Your task to perform on an android device: Do I have any events today? Image 0: 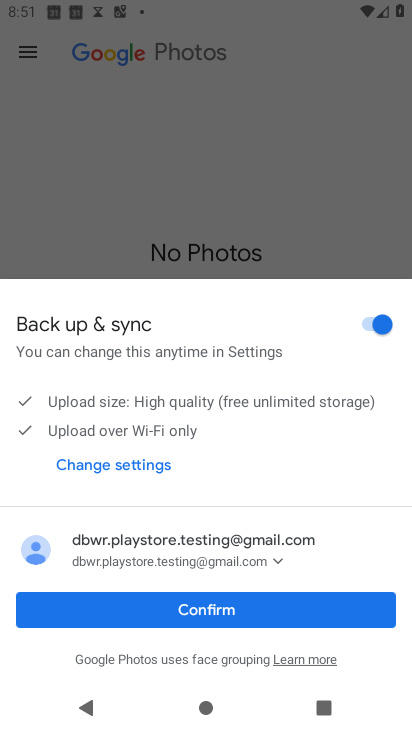
Step 0: press home button
Your task to perform on an android device: Do I have any events today? Image 1: 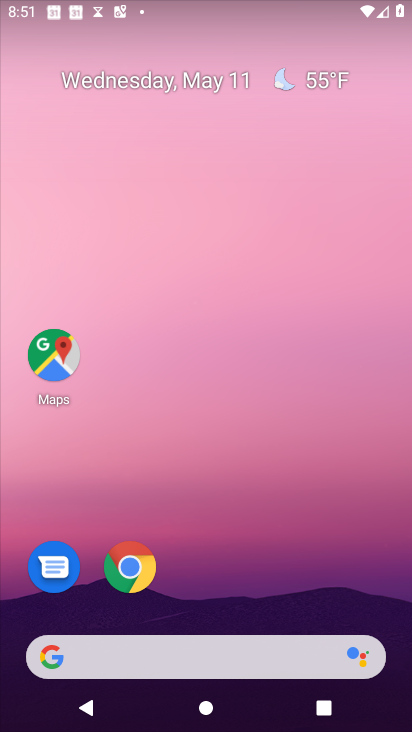
Step 1: drag from (199, 598) to (252, 24)
Your task to perform on an android device: Do I have any events today? Image 2: 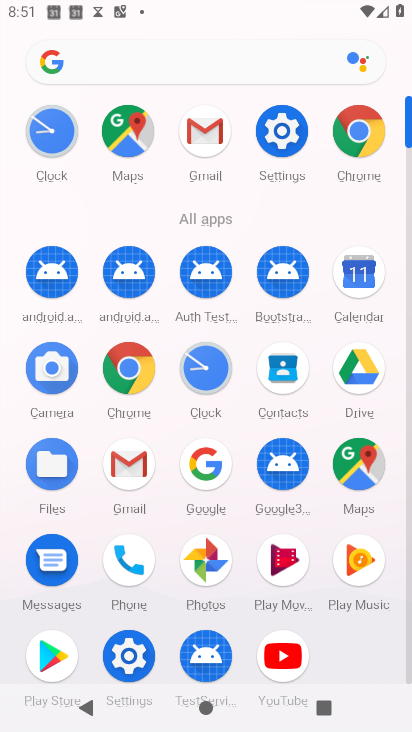
Step 2: click (348, 280)
Your task to perform on an android device: Do I have any events today? Image 3: 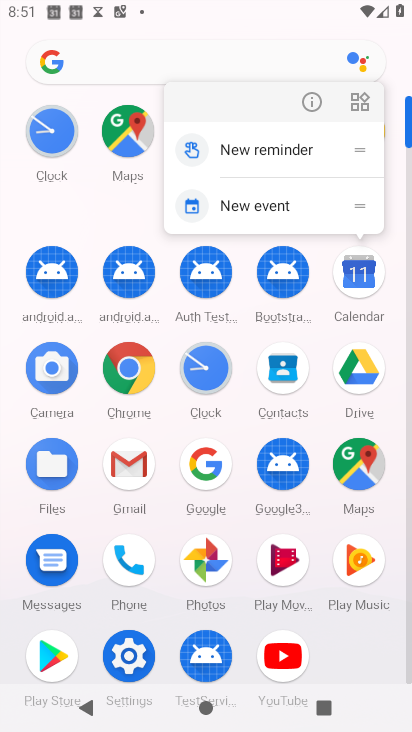
Step 3: click (348, 280)
Your task to perform on an android device: Do I have any events today? Image 4: 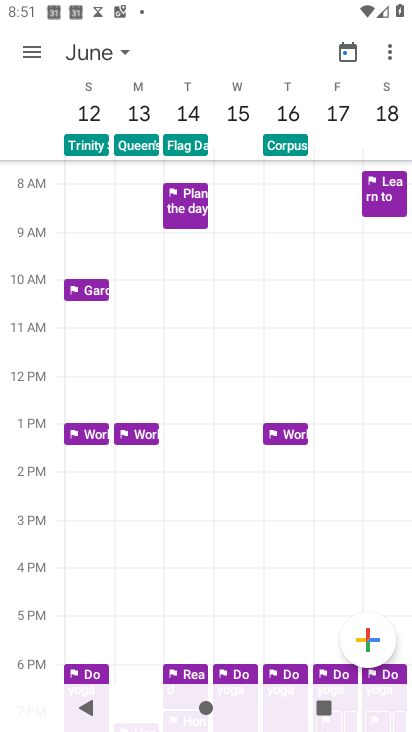
Step 4: click (96, 51)
Your task to perform on an android device: Do I have any events today? Image 5: 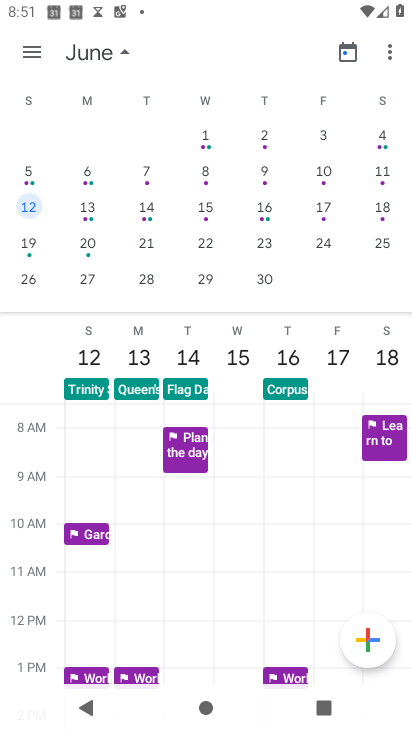
Step 5: drag from (57, 202) to (391, 240)
Your task to perform on an android device: Do I have any events today? Image 6: 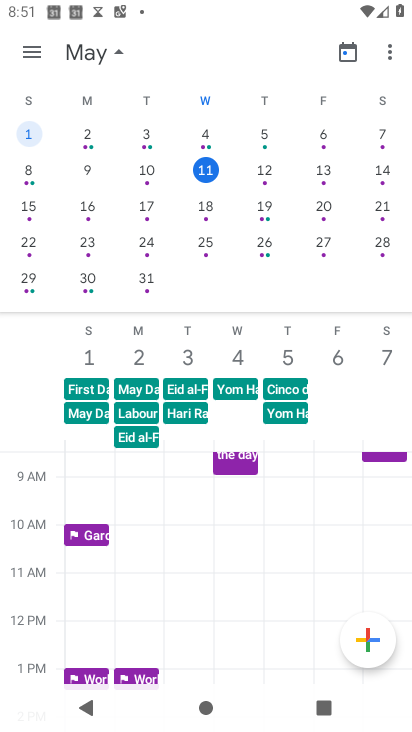
Step 6: click (207, 170)
Your task to perform on an android device: Do I have any events today? Image 7: 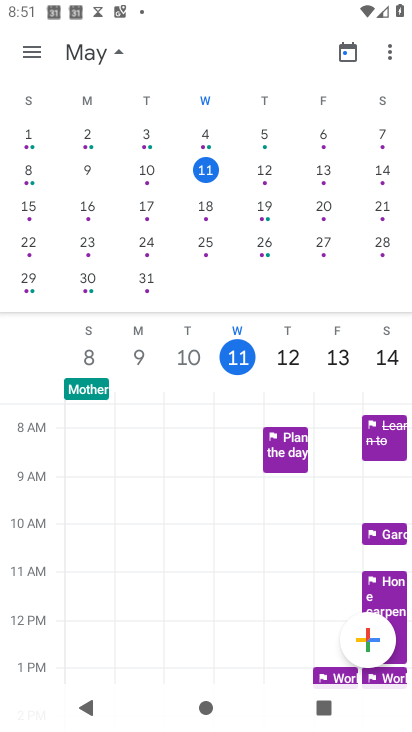
Step 7: click (31, 56)
Your task to perform on an android device: Do I have any events today? Image 8: 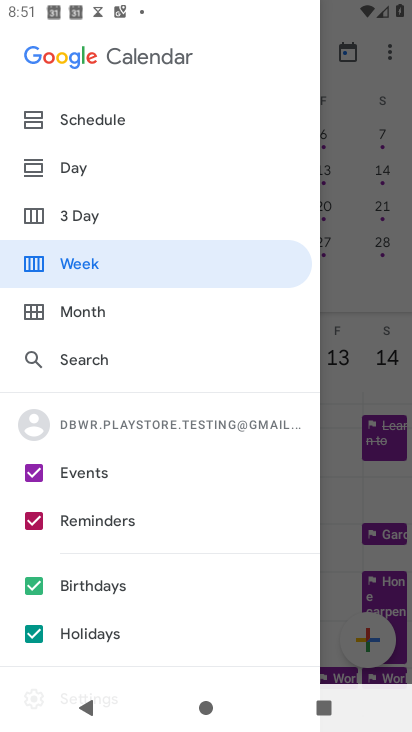
Step 8: click (88, 519)
Your task to perform on an android device: Do I have any events today? Image 9: 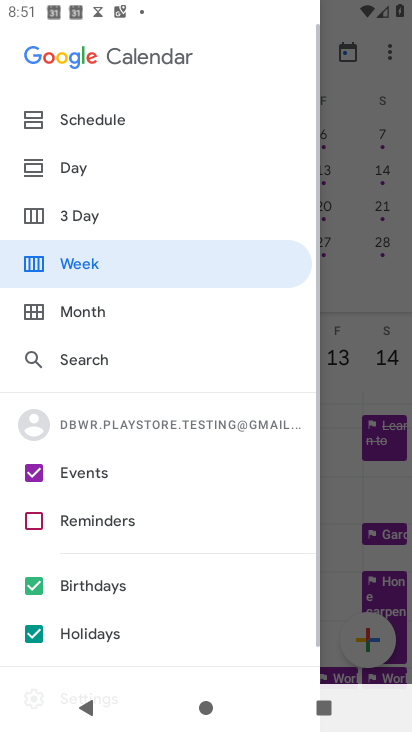
Step 9: click (87, 584)
Your task to perform on an android device: Do I have any events today? Image 10: 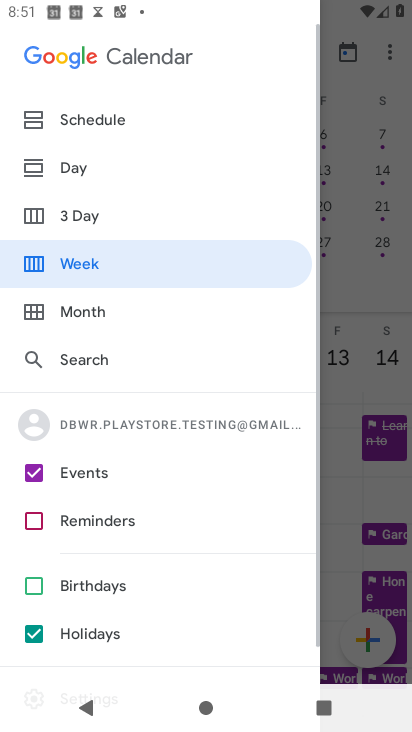
Step 10: click (65, 634)
Your task to perform on an android device: Do I have any events today? Image 11: 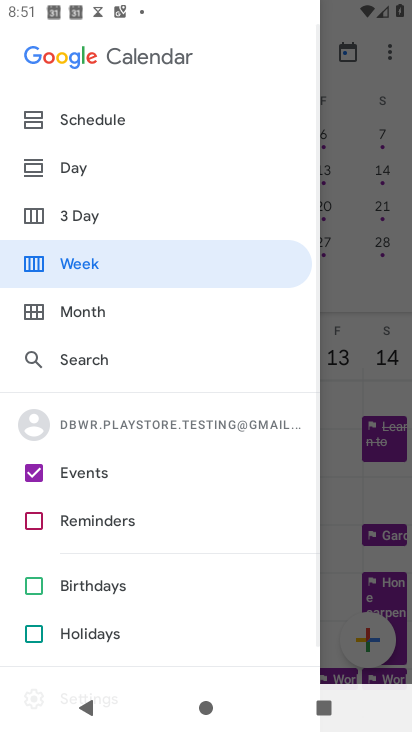
Step 11: click (85, 172)
Your task to perform on an android device: Do I have any events today? Image 12: 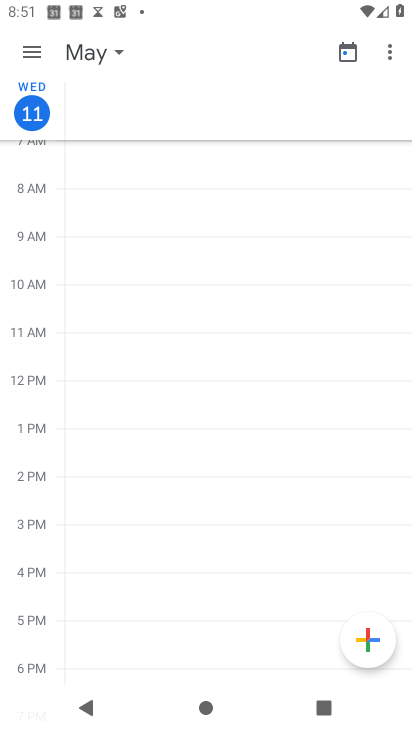
Step 12: task complete